Your task to perform on an android device: show emergency info Image 0: 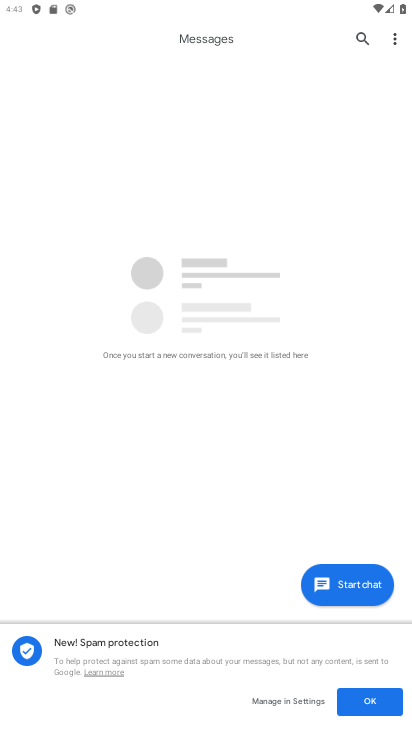
Step 0: press back button
Your task to perform on an android device: show emergency info Image 1: 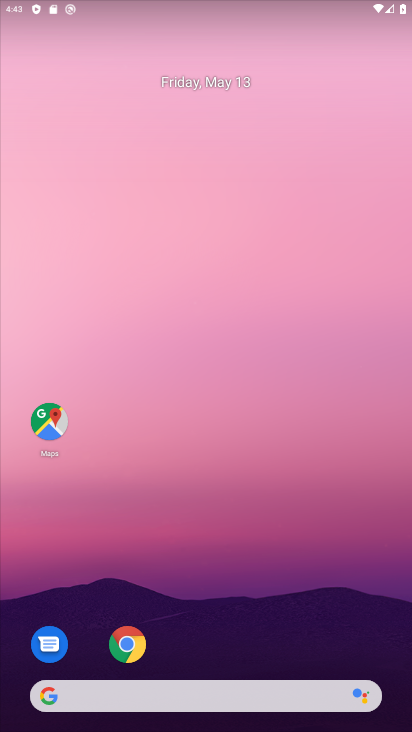
Step 1: drag from (217, 646) to (268, 19)
Your task to perform on an android device: show emergency info Image 2: 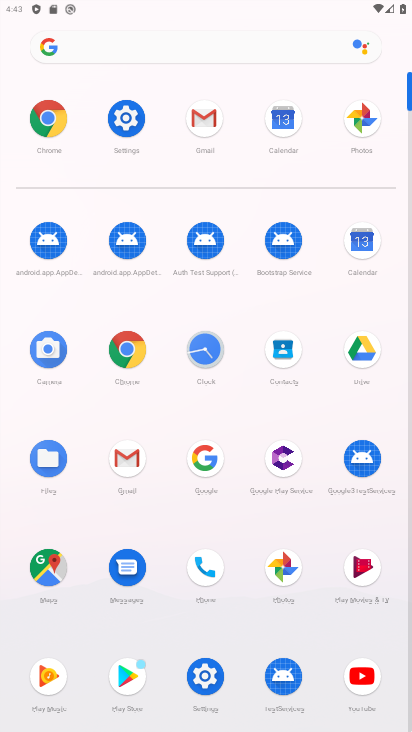
Step 2: click (115, 118)
Your task to perform on an android device: show emergency info Image 3: 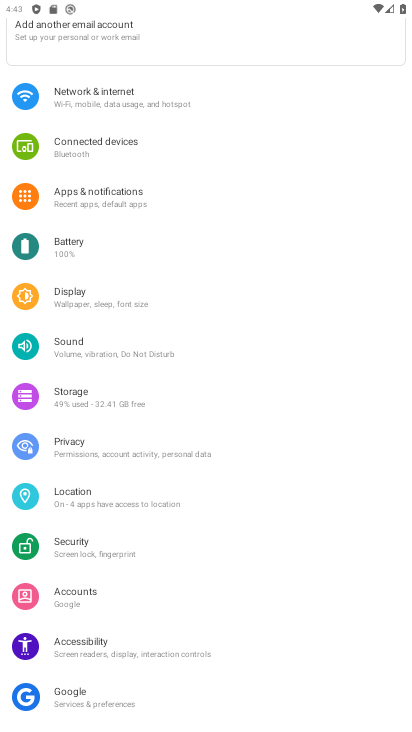
Step 3: drag from (147, 661) to (307, 28)
Your task to perform on an android device: show emergency info Image 4: 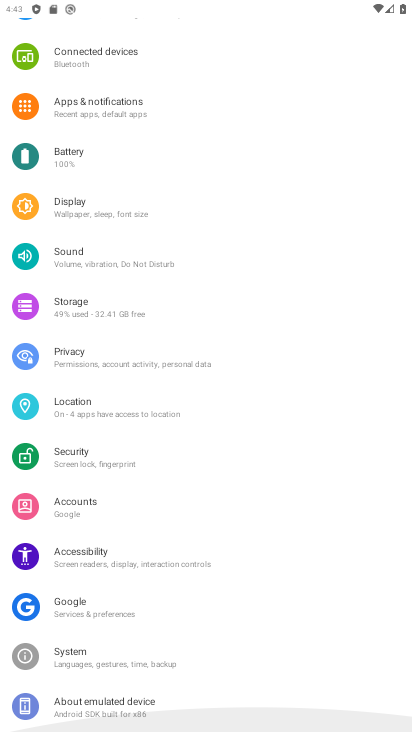
Step 4: drag from (159, 614) to (253, 102)
Your task to perform on an android device: show emergency info Image 5: 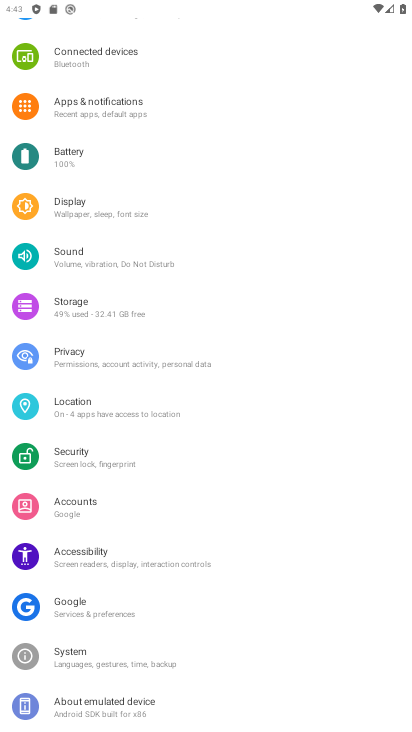
Step 5: click (157, 714)
Your task to perform on an android device: show emergency info Image 6: 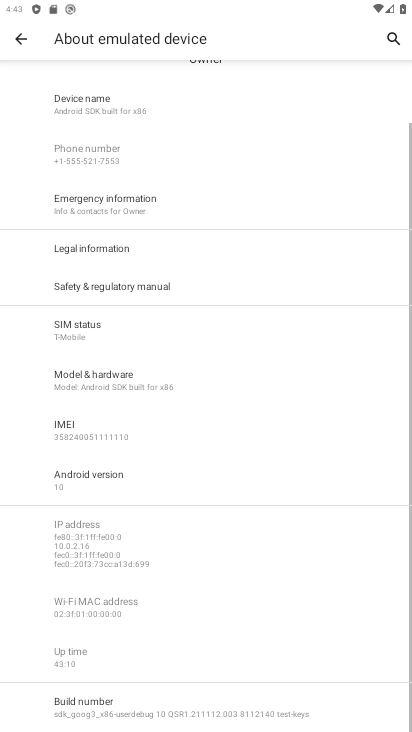
Step 6: click (105, 192)
Your task to perform on an android device: show emergency info Image 7: 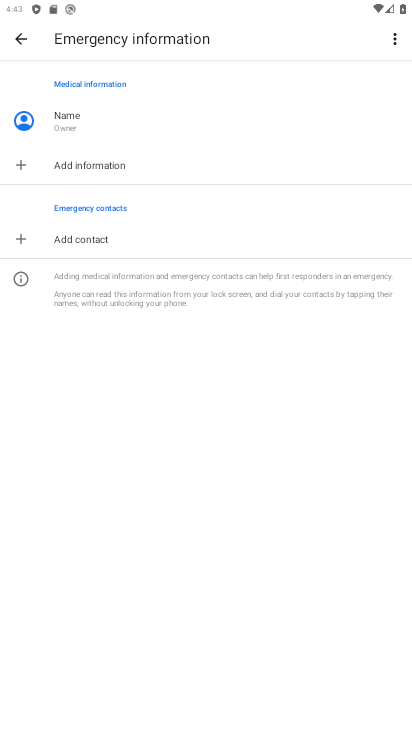
Step 7: task complete